Your task to perform on an android device: Do I have any events this weekend? Image 0: 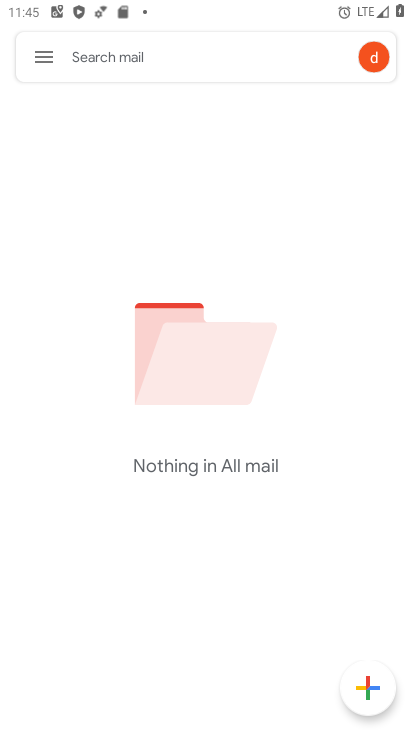
Step 0: press home button
Your task to perform on an android device: Do I have any events this weekend? Image 1: 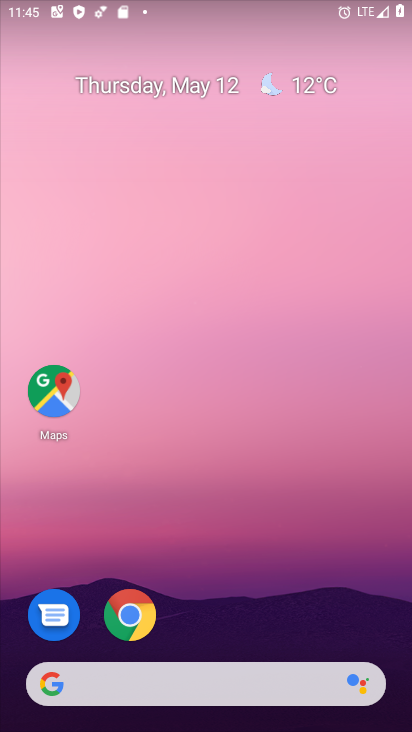
Step 1: drag from (253, 510) to (263, 33)
Your task to perform on an android device: Do I have any events this weekend? Image 2: 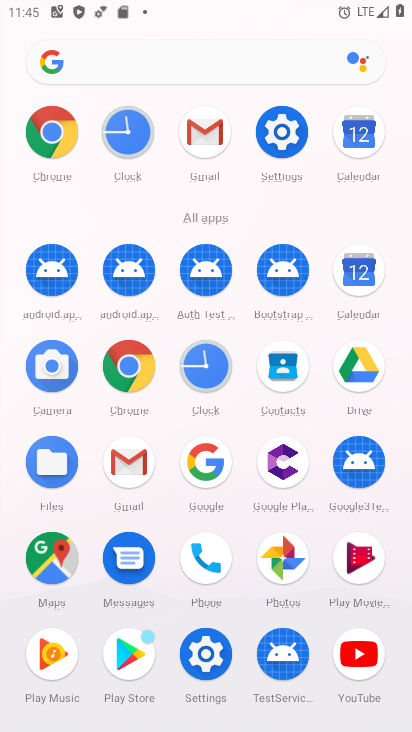
Step 2: click (357, 139)
Your task to perform on an android device: Do I have any events this weekend? Image 3: 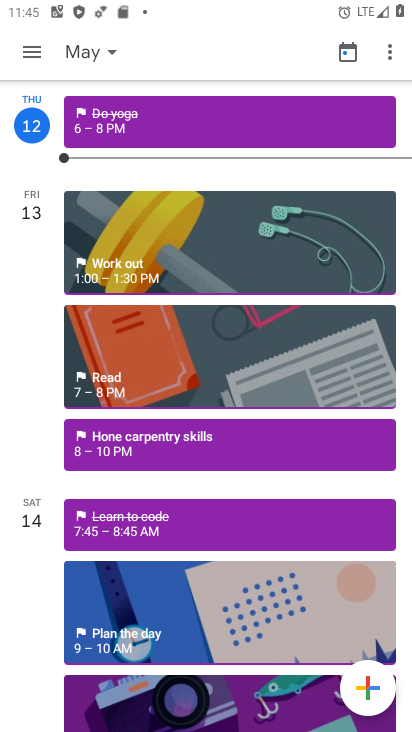
Step 3: task complete